Your task to perform on an android device: Open Chrome and go to settings Image 0: 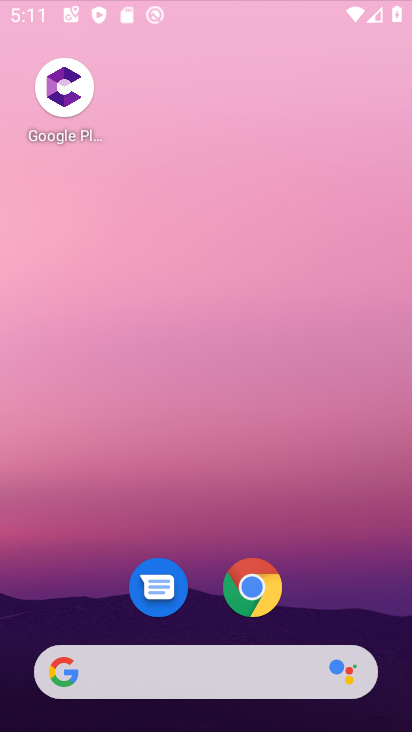
Step 0: click (227, 114)
Your task to perform on an android device: Open Chrome and go to settings Image 1: 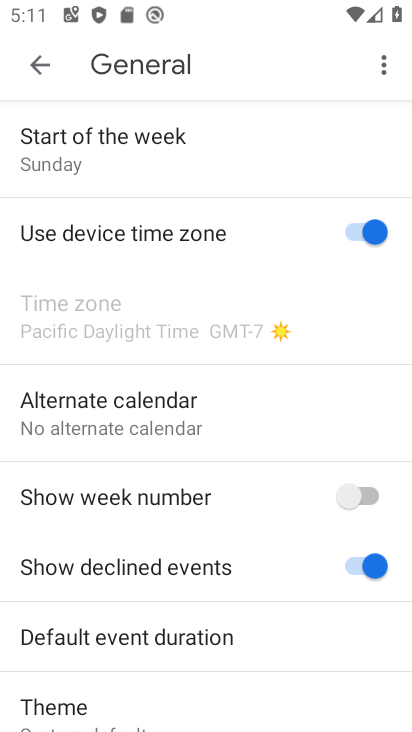
Step 1: press home button
Your task to perform on an android device: Open Chrome and go to settings Image 2: 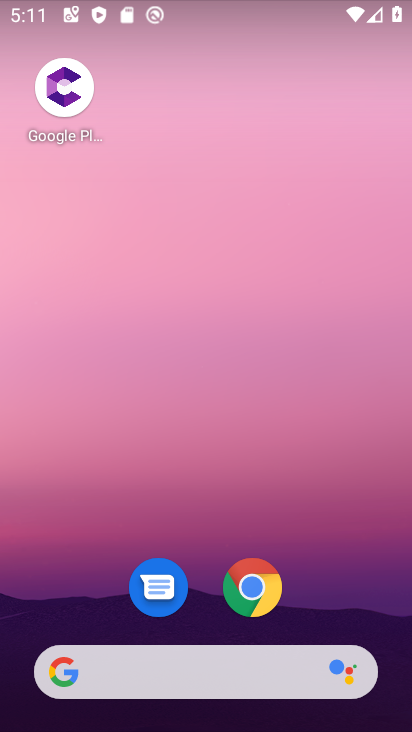
Step 2: drag from (209, 620) to (257, 185)
Your task to perform on an android device: Open Chrome and go to settings Image 3: 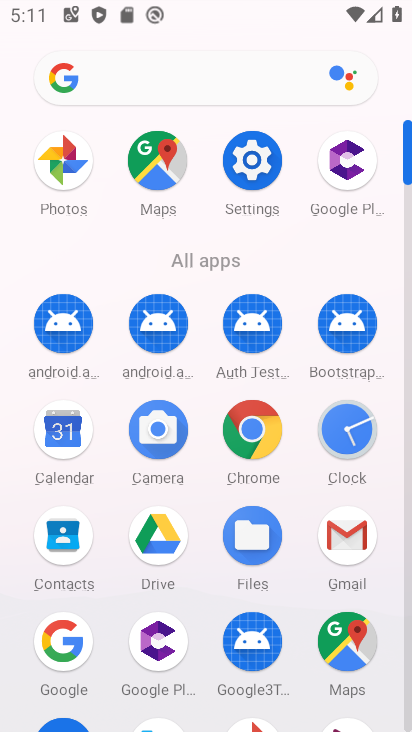
Step 3: click (241, 446)
Your task to perform on an android device: Open Chrome and go to settings Image 4: 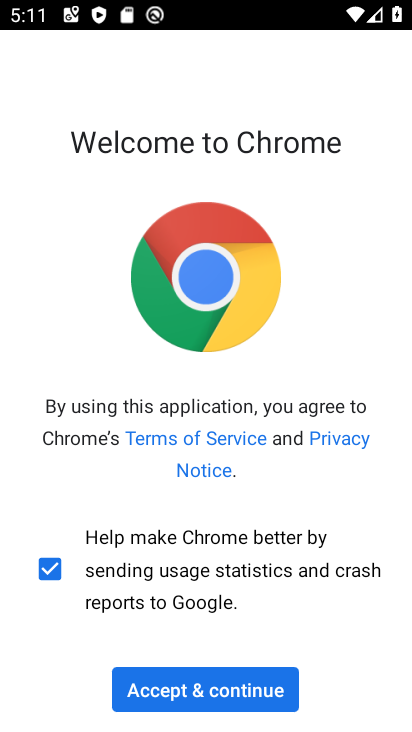
Step 4: click (183, 689)
Your task to perform on an android device: Open Chrome and go to settings Image 5: 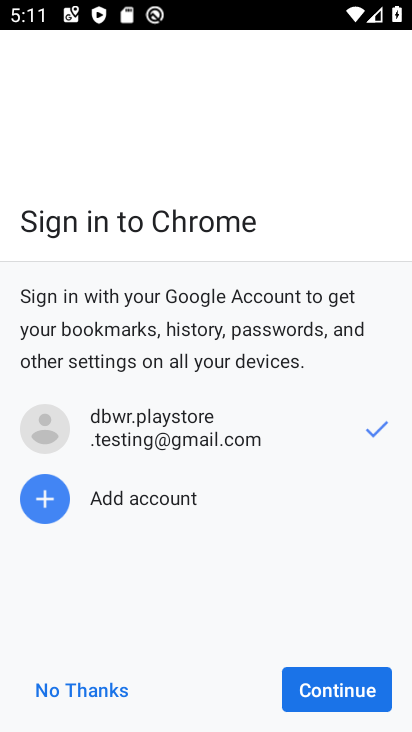
Step 5: click (351, 693)
Your task to perform on an android device: Open Chrome and go to settings Image 6: 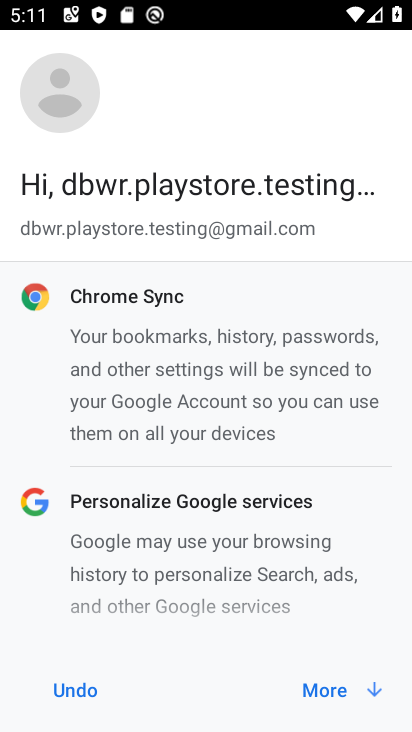
Step 6: click (318, 702)
Your task to perform on an android device: Open Chrome and go to settings Image 7: 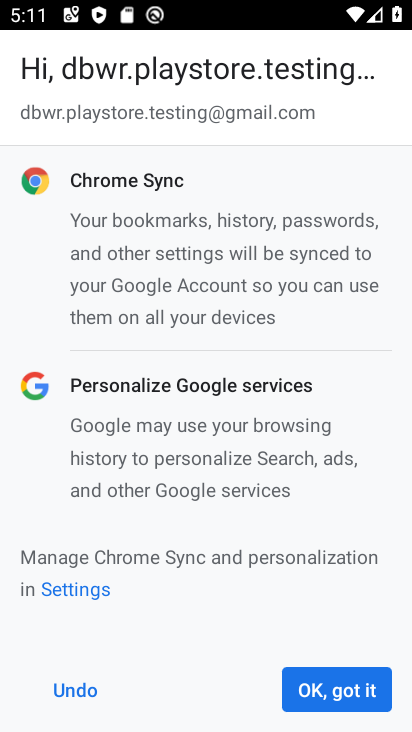
Step 7: click (318, 702)
Your task to perform on an android device: Open Chrome and go to settings Image 8: 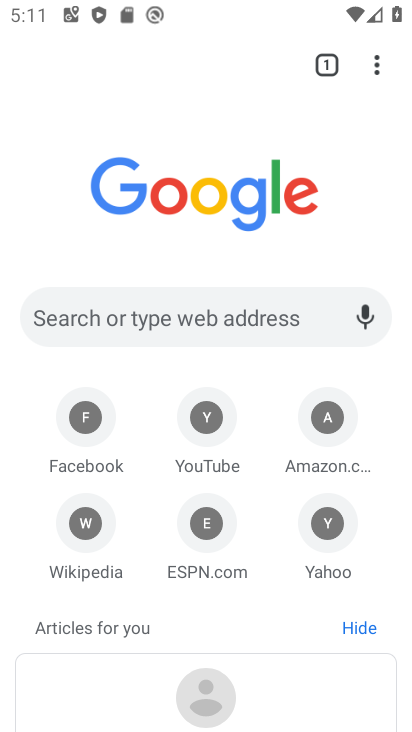
Step 8: click (374, 74)
Your task to perform on an android device: Open Chrome and go to settings Image 9: 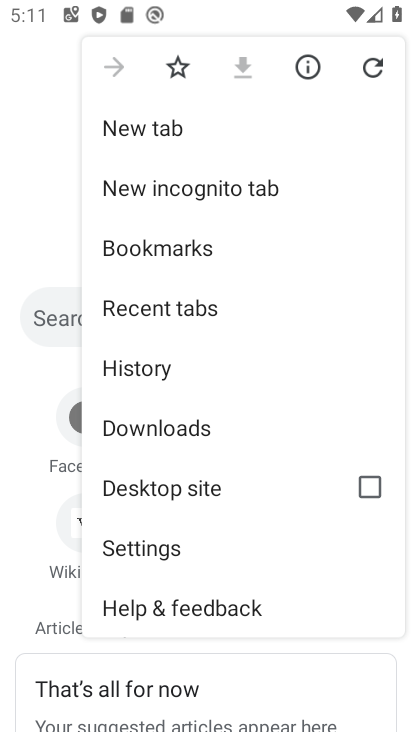
Step 9: click (168, 548)
Your task to perform on an android device: Open Chrome and go to settings Image 10: 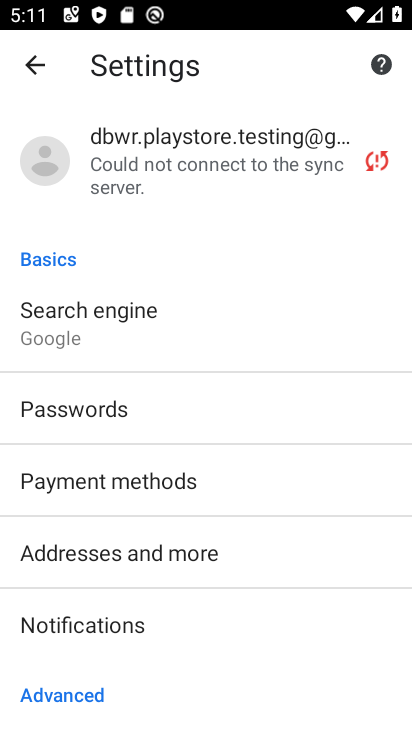
Step 10: task complete